Your task to perform on an android device: Open eBay Image 0: 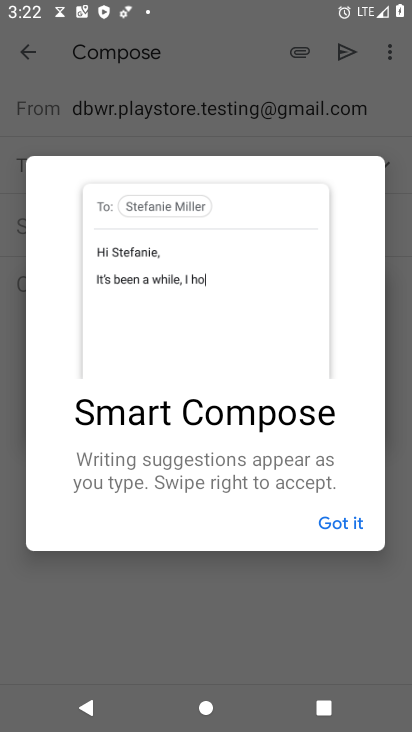
Step 0: press home button
Your task to perform on an android device: Open eBay Image 1: 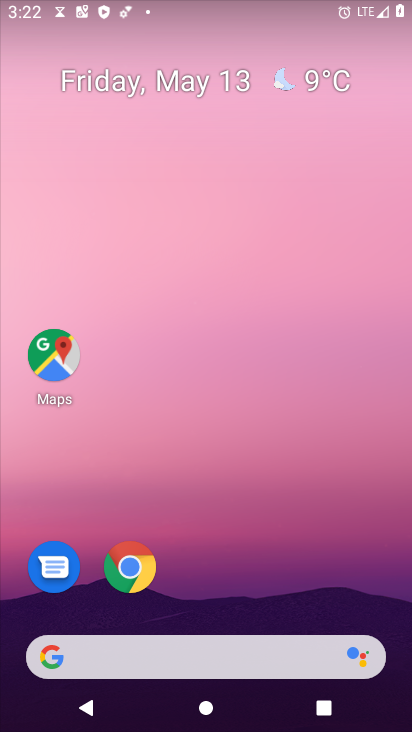
Step 1: click (130, 571)
Your task to perform on an android device: Open eBay Image 2: 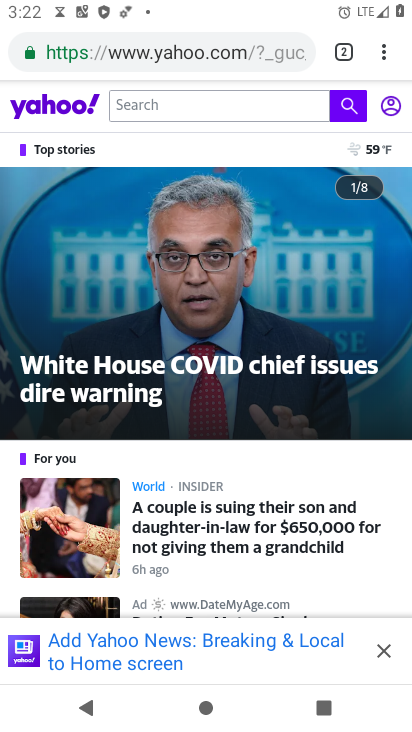
Step 2: click (157, 52)
Your task to perform on an android device: Open eBay Image 3: 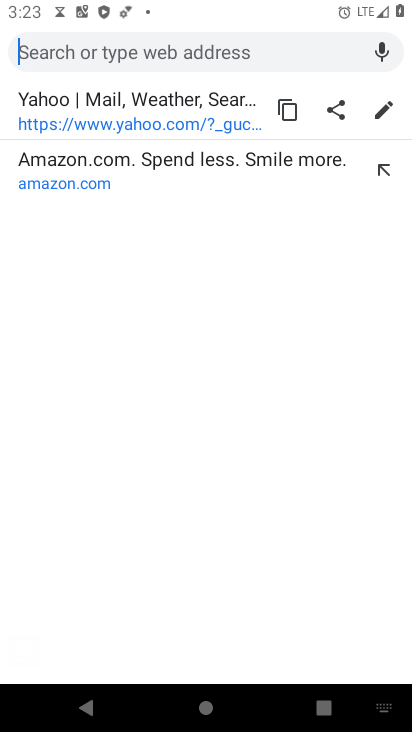
Step 3: type "ebay"
Your task to perform on an android device: Open eBay Image 4: 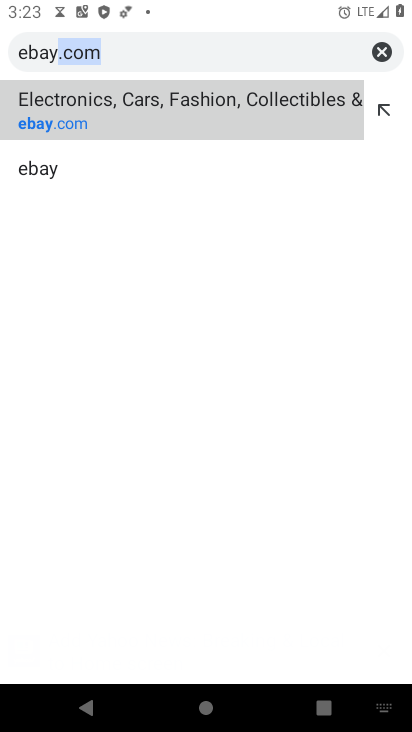
Step 4: click (55, 126)
Your task to perform on an android device: Open eBay Image 5: 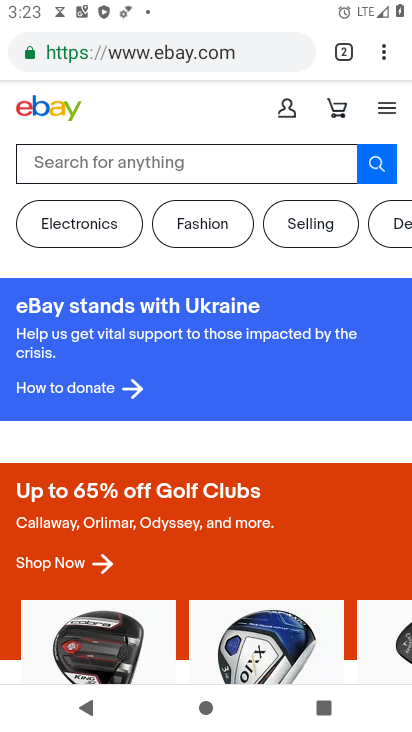
Step 5: task complete